Your task to perform on an android device: turn off location Image 0: 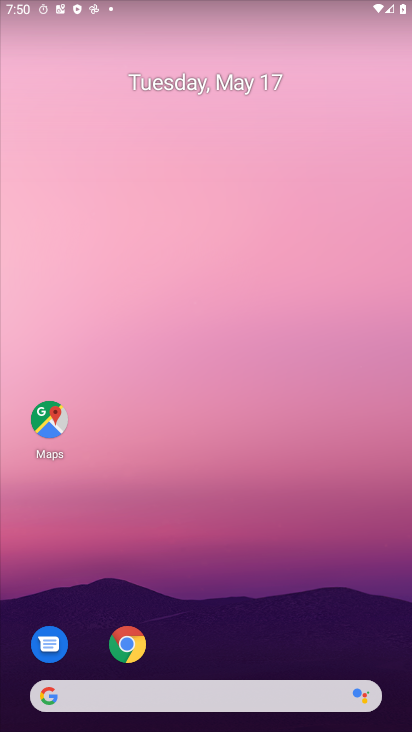
Step 0: drag from (315, 608) to (258, 37)
Your task to perform on an android device: turn off location Image 1: 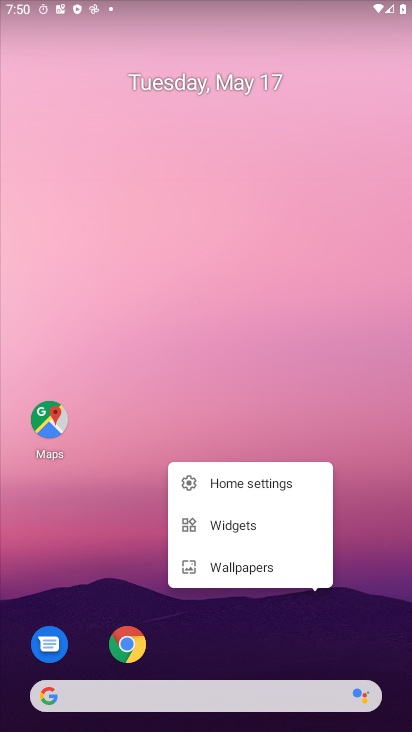
Step 1: click (10, 283)
Your task to perform on an android device: turn off location Image 2: 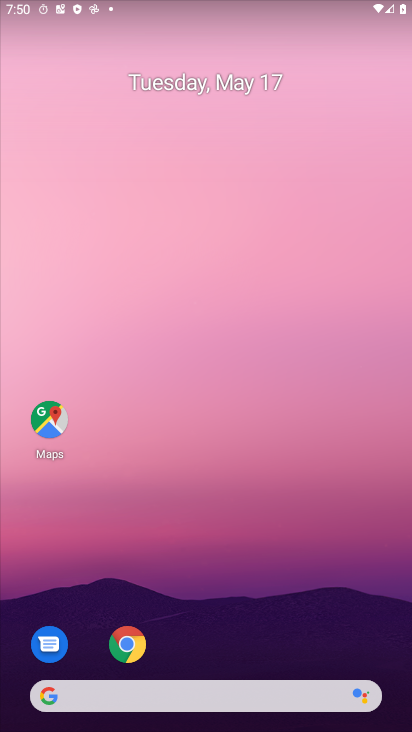
Step 2: drag from (320, 633) to (283, 92)
Your task to perform on an android device: turn off location Image 3: 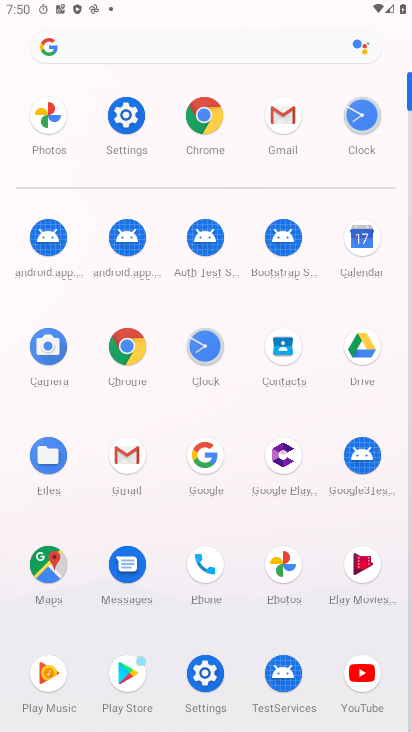
Step 3: click (125, 107)
Your task to perform on an android device: turn off location Image 4: 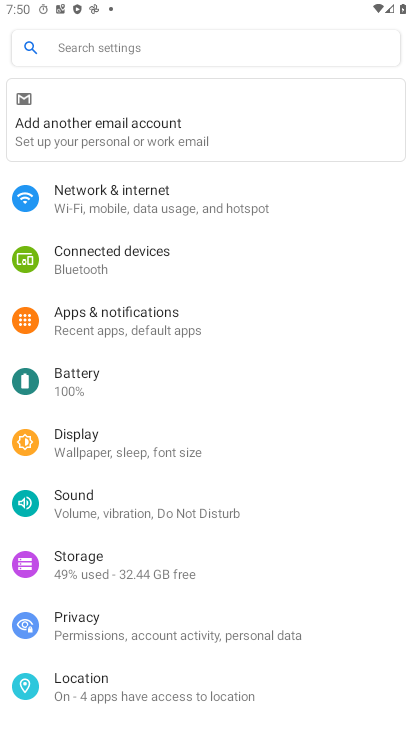
Step 4: click (75, 693)
Your task to perform on an android device: turn off location Image 5: 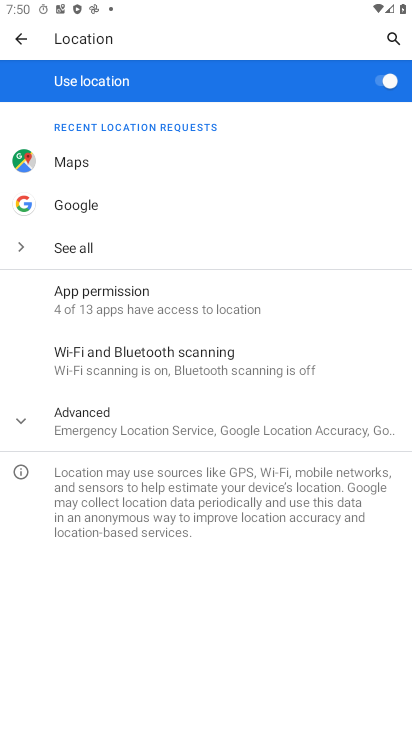
Step 5: click (355, 79)
Your task to perform on an android device: turn off location Image 6: 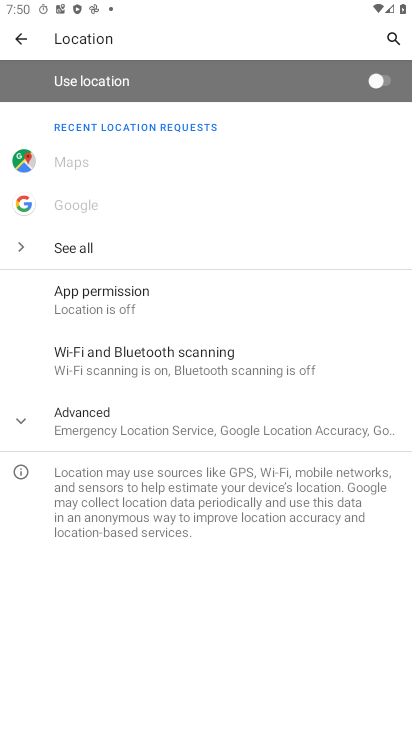
Step 6: task complete